Your task to perform on an android device: Go to battery settings Image 0: 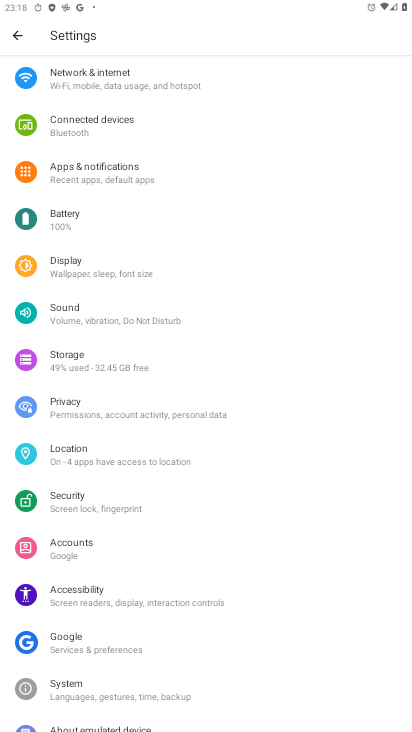
Step 0: click (166, 212)
Your task to perform on an android device: Go to battery settings Image 1: 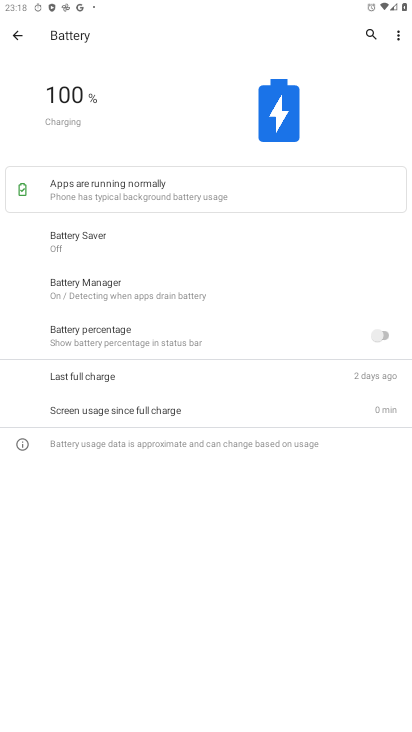
Step 1: task complete